Your task to perform on an android device: turn notification dots on Image 0: 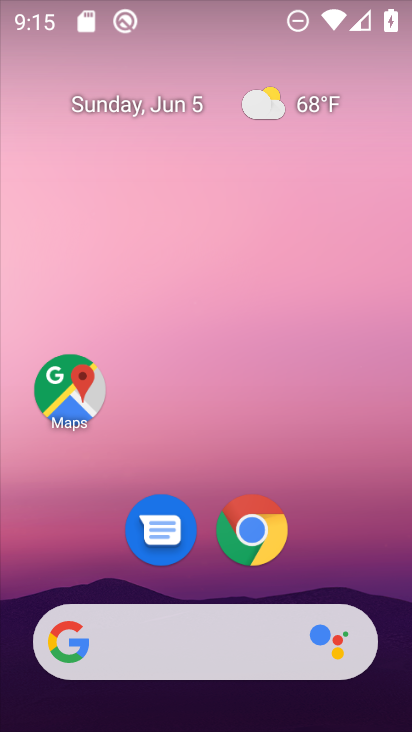
Step 0: drag from (392, 587) to (354, 27)
Your task to perform on an android device: turn notification dots on Image 1: 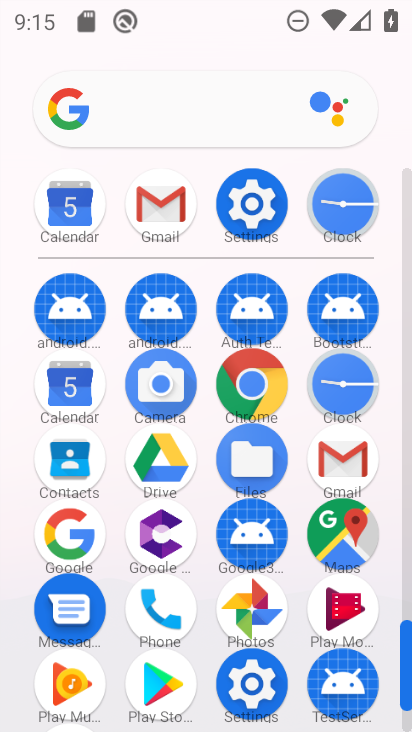
Step 1: click (405, 579)
Your task to perform on an android device: turn notification dots on Image 2: 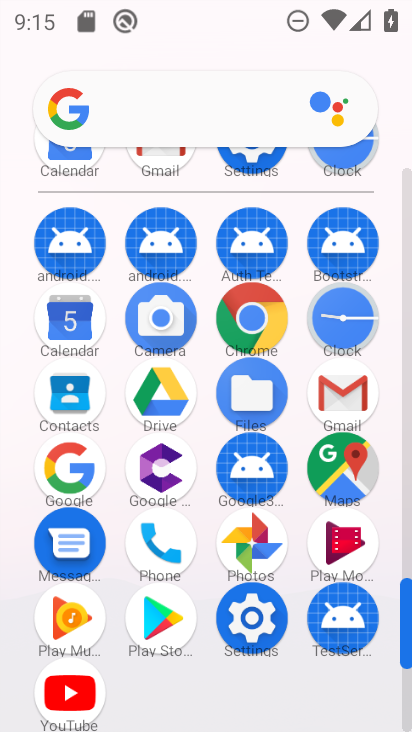
Step 2: click (255, 616)
Your task to perform on an android device: turn notification dots on Image 3: 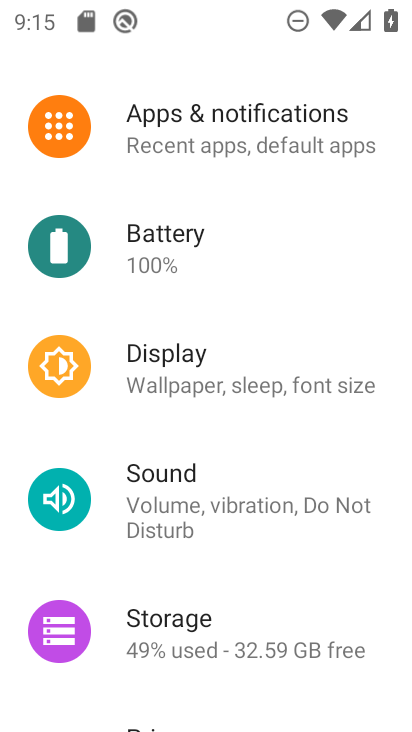
Step 3: click (172, 110)
Your task to perform on an android device: turn notification dots on Image 4: 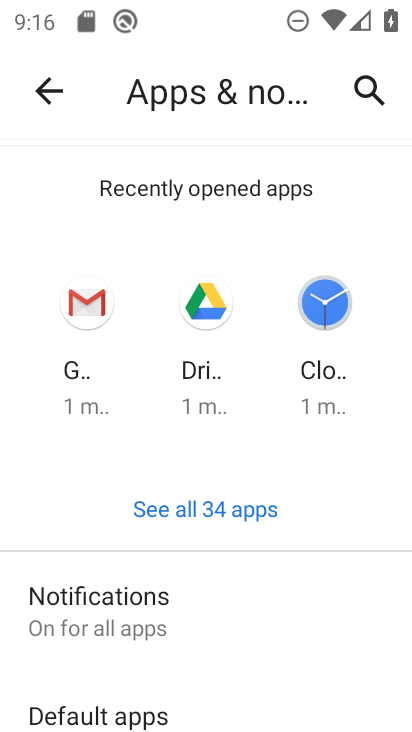
Step 4: click (126, 640)
Your task to perform on an android device: turn notification dots on Image 5: 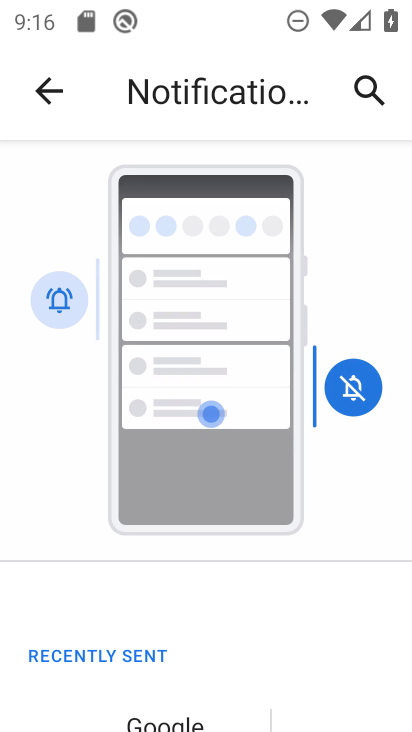
Step 5: drag from (276, 699) to (231, 201)
Your task to perform on an android device: turn notification dots on Image 6: 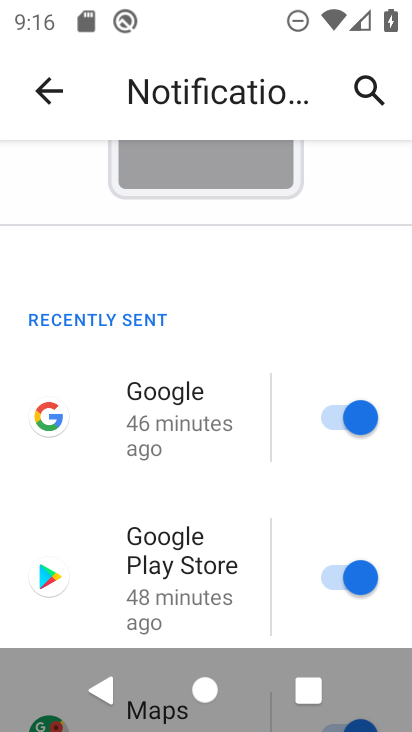
Step 6: drag from (261, 586) to (249, 94)
Your task to perform on an android device: turn notification dots on Image 7: 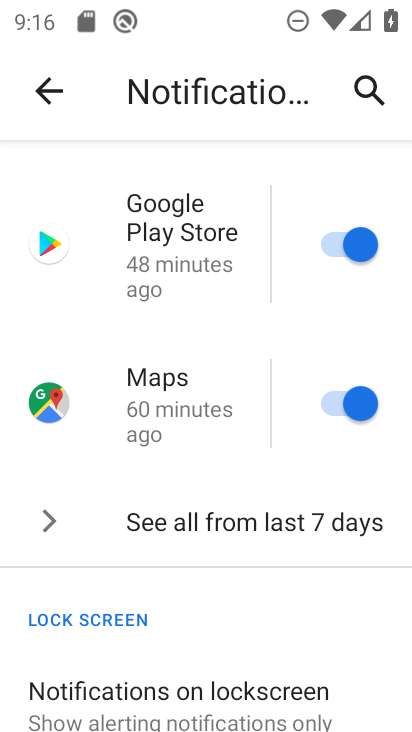
Step 7: drag from (222, 653) to (221, 121)
Your task to perform on an android device: turn notification dots on Image 8: 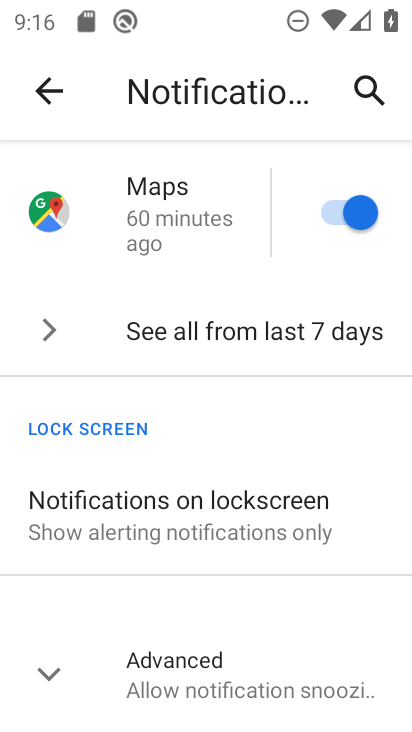
Step 8: click (26, 678)
Your task to perform on an android device: turn notification dots on Image 9: 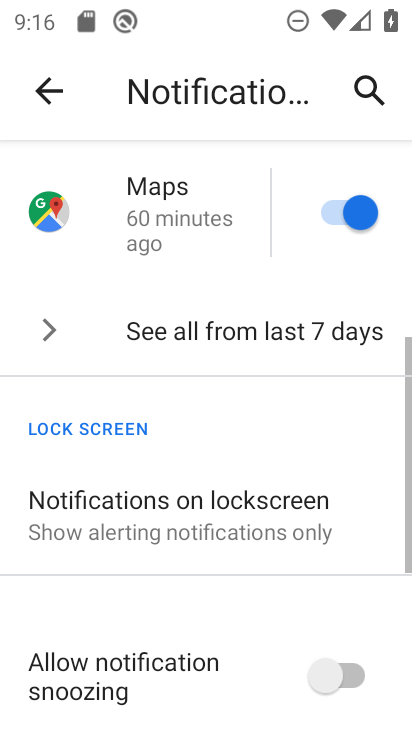
Step 9: task complete